Your task to perform on an android device: turn on sleep mode Image 0: 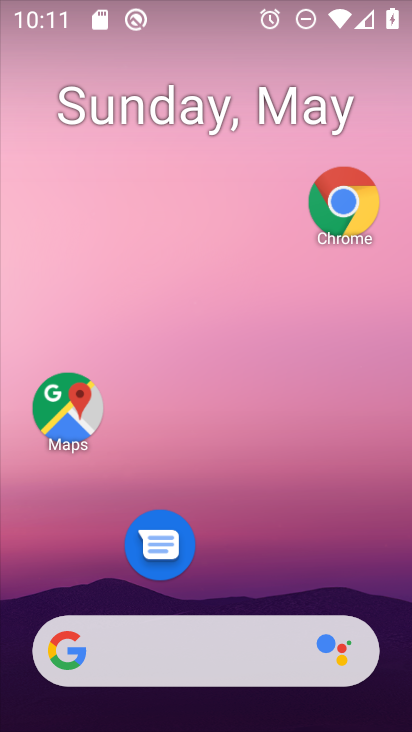
Step 0: drag from (240, 596) to (254, 39)
Your task to perform on an android device: turn on sleep mode Image 1: 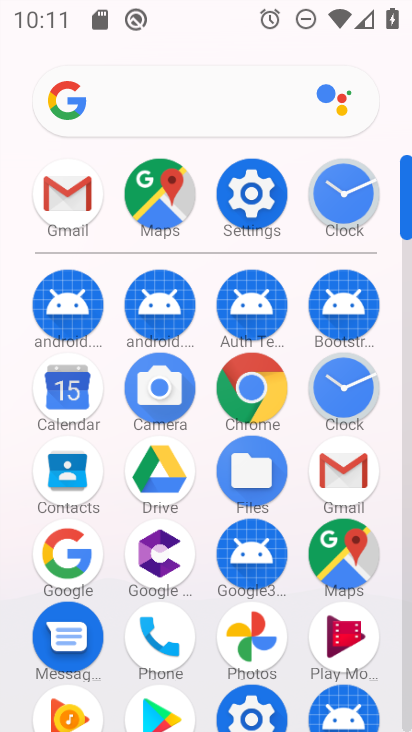
Step 1: click (259, 192)
Your task to perform on an android device: turn on sleep mode Image 2: 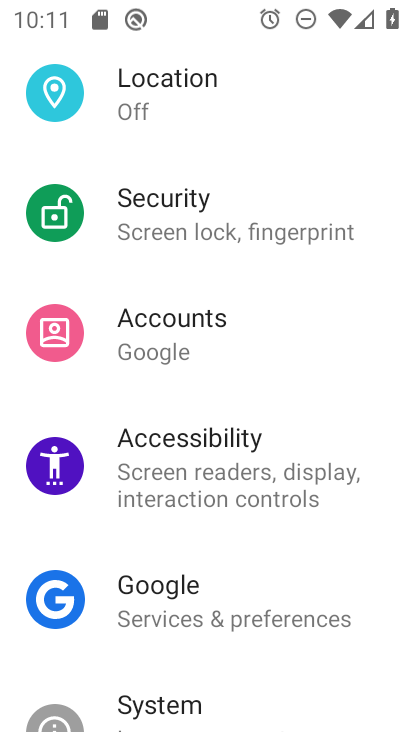
Step 2: drag from (233, 336) to (228, 515)
Your task to perform on an android device: turn on sleep mode Image 3: 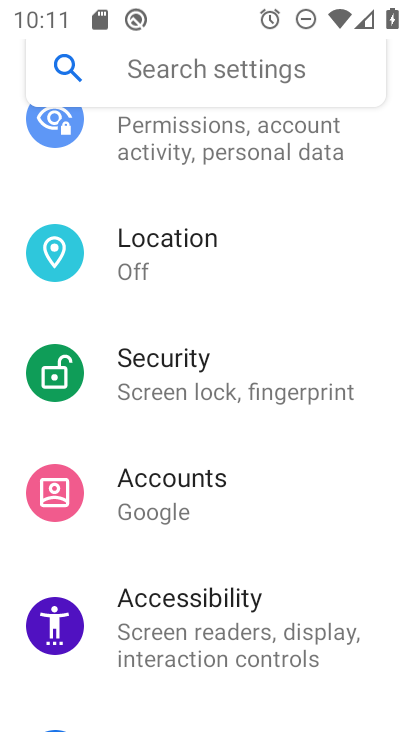
Step 3: drag from (215, 393) to (189, 545)
Your task to perform on an android device: turn on sleep mode Image 4: 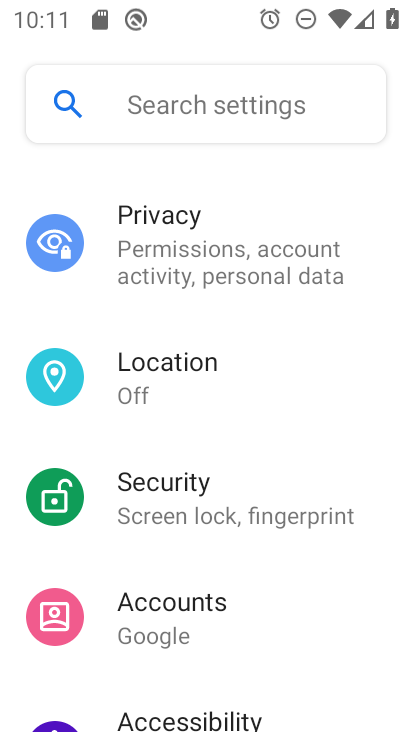
Step 4: drag from (183, 331) to (153, 491)
Your task to perform on an android device: turn on sleep mode Image 5: 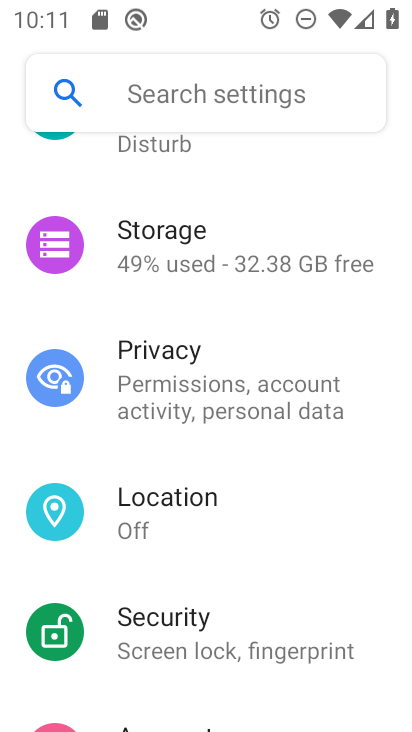
Step 5: drag from (134, 332) to (111, 474)
Your task to perform on an android device: turn on sleep mode Image 6: 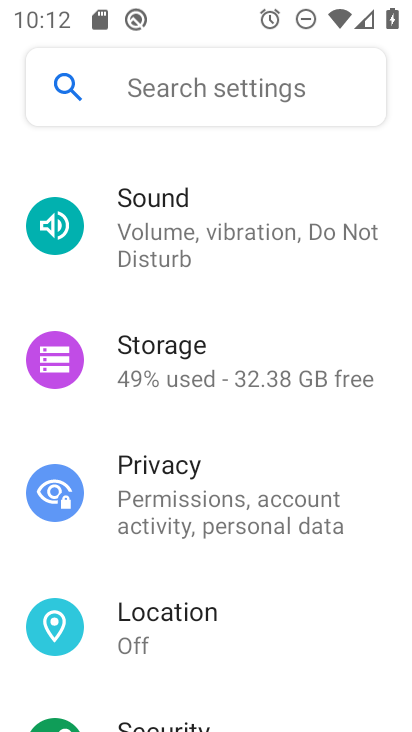
Step 6: drag from (170, 280) to (146, 455)
Your task to perform on an android device: turn on sleep mode Image 7: 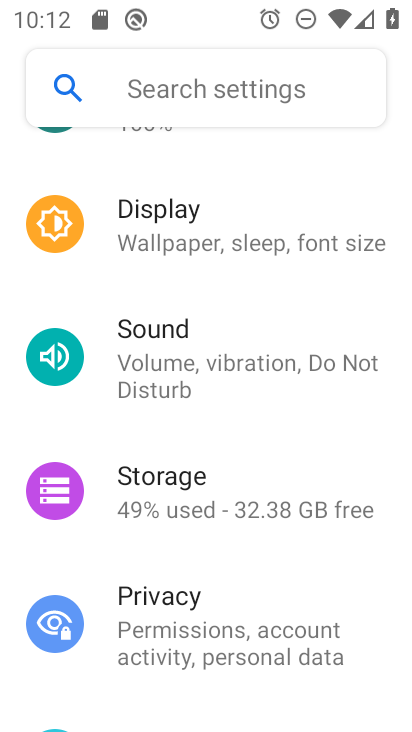
Step 7: click (133, 231)
Your task to perform on an android device: turn on sleep mode Image 8: 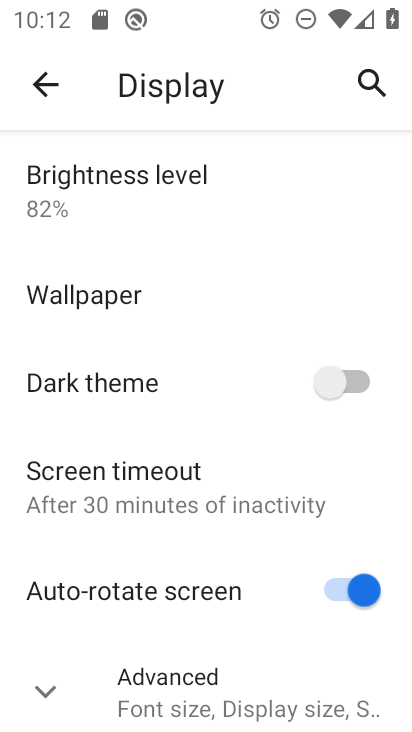
Step 8: drag from (196, 512) to (201, 296)
Your task to perform on an android device: turn on sleep mode Image 9: 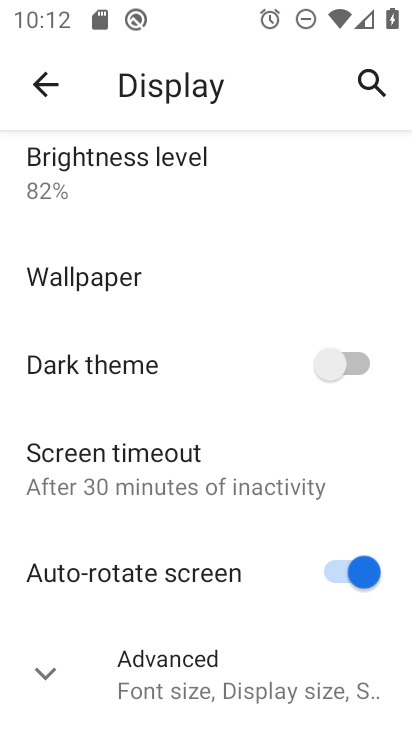
Step 9: click (127, 645)
Your task to perform on an android device: turn on sleep mode Image 10: 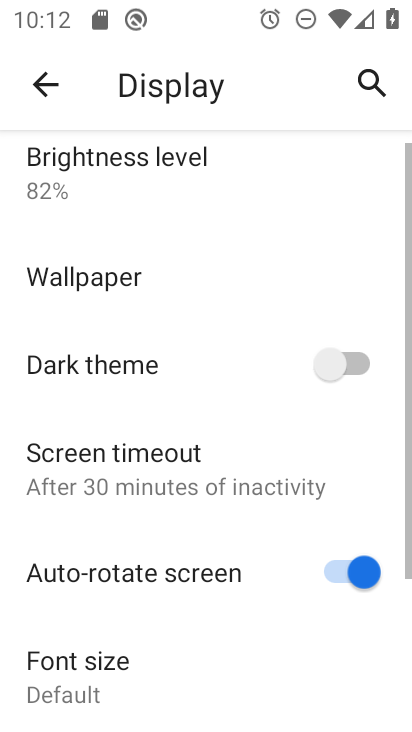
Step 10: task complete